Your task to perform on an android device: Open ESPN.com Image 0: 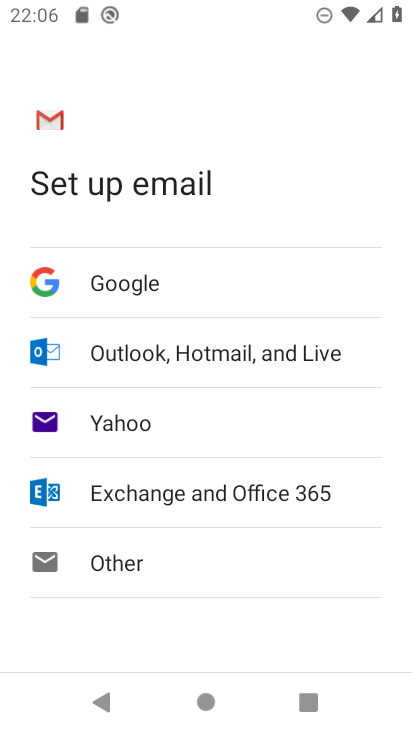
Step 0: press home button
Your task to perform on an android device: Open ESPN.com Image 1: 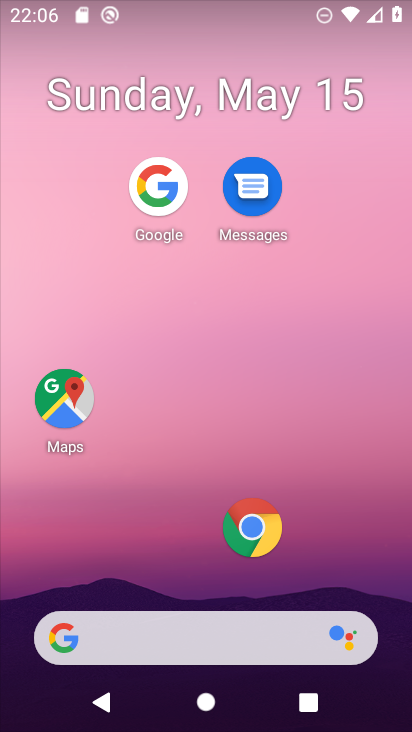
Step 1: click (245, 535)
Your task to perform on an android device: Open ESPN.com Image 2: 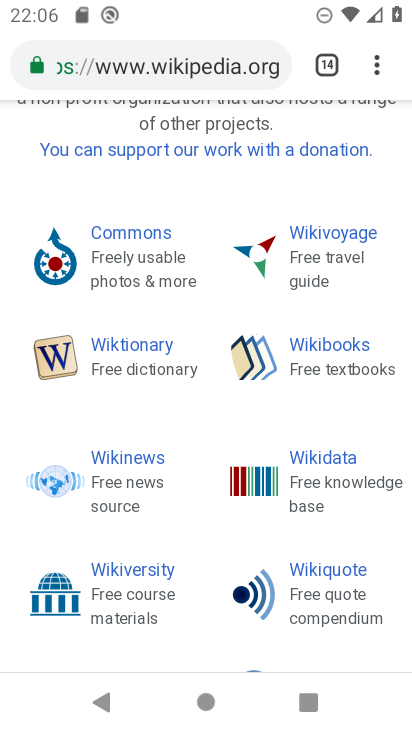
Step 2: drag from (370, 71) to (242, 138)
Your task to perform on an android device: Open ESPN.com Image 3: 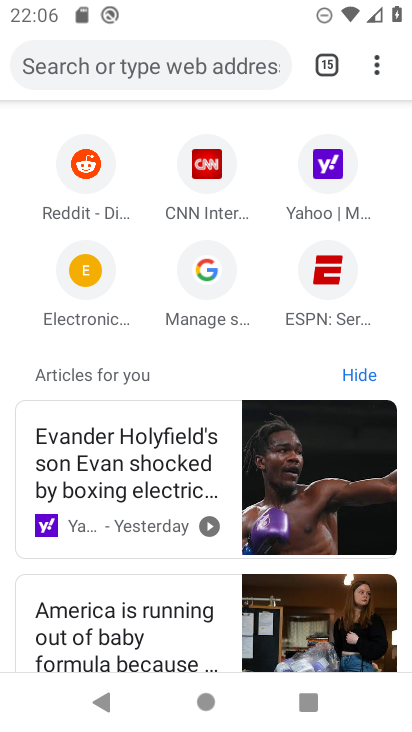
Step 3: click (322, 284)
Your task to perform on an android device: Open ESPN.com Image 4: 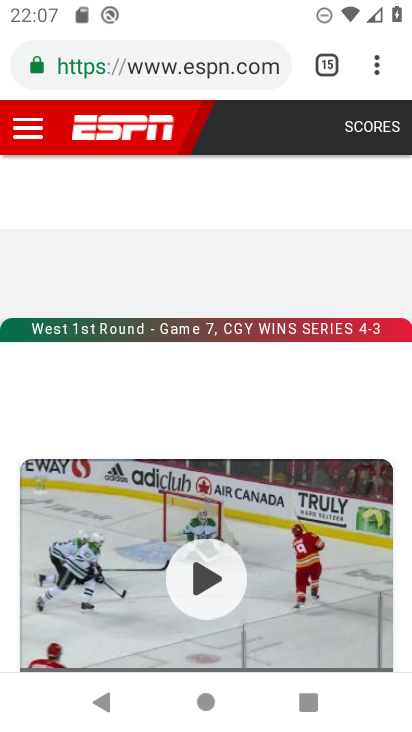
Step 4: task complete